Your task to perform on an android device: turn pop-ups on in chrome Image 0: 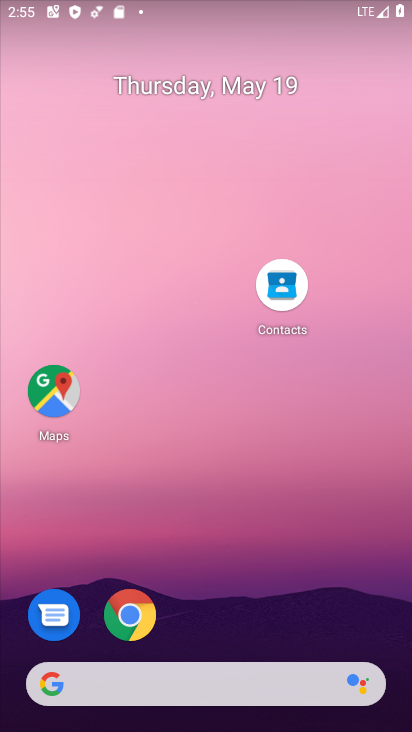
Step 0: drag from (323, 526) to (317, 226)
Your task to perform on an android device: turn pop-ups on in chrome Image 1: 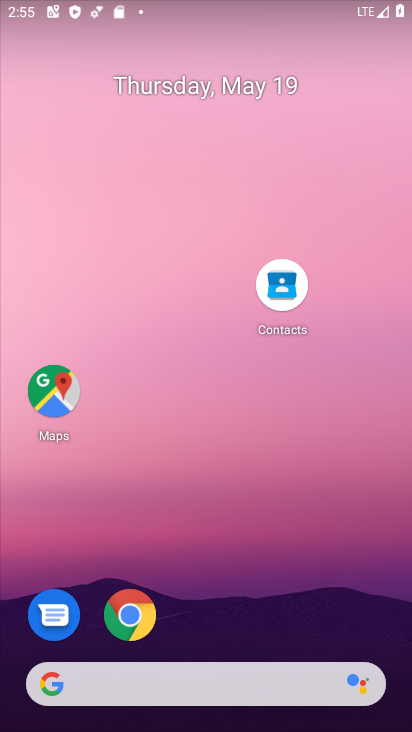
Step 1: drag from (203, 571) to (261, 126)
Your task to perform on an android device: turn pop-ups on in chrome Image 2: 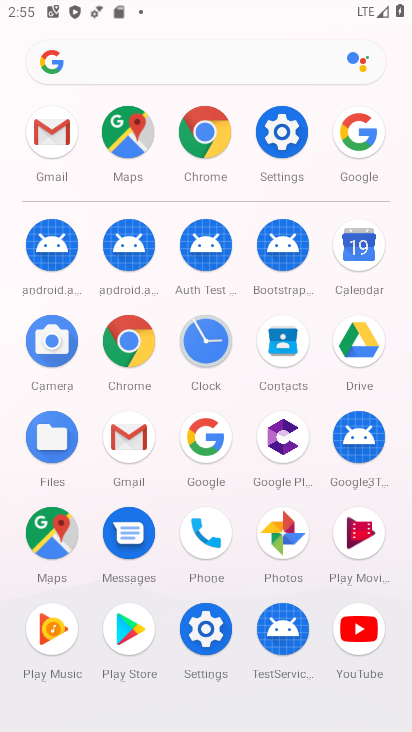
Step 2: click (220, 134)
Your task to perform on an android device: turn pop-ups on in chrome Image 3: 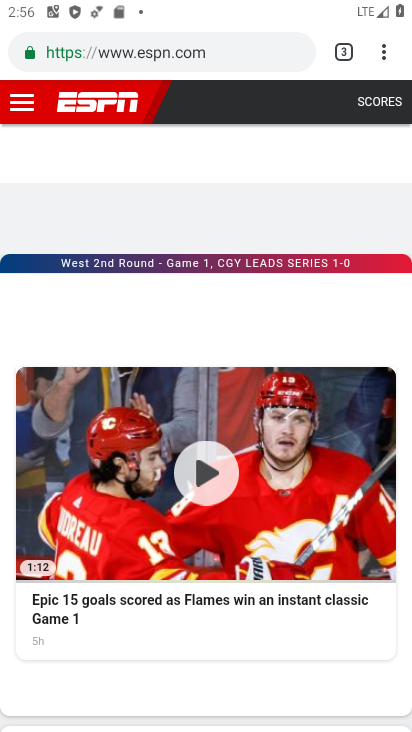
Step 3: click (389, 49)
Your task to perform on an android device: turn pop-ups on in chrome Image 4: 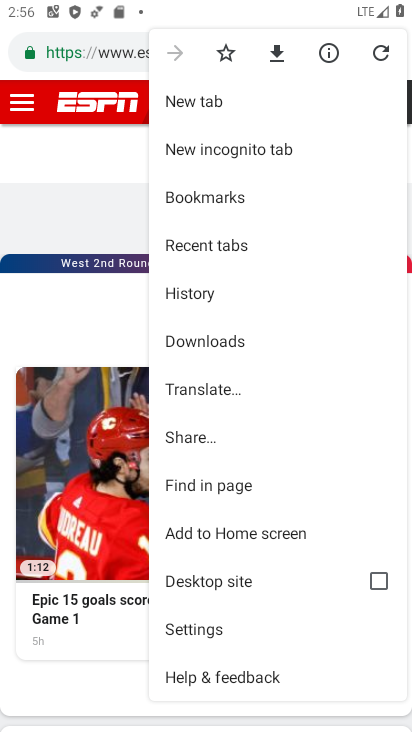
Step 4: click (240, 628)
Your task to perform on an android device: turn pop-ups on in chrome Image 5: 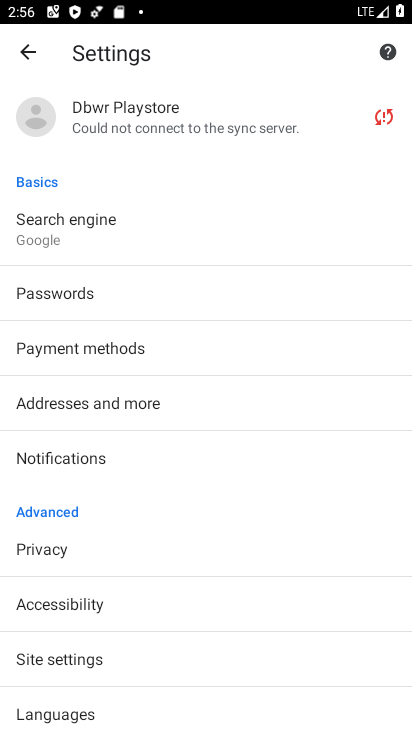
Step 5: drag from (201, 517) to (270, 285)
Your task to perform on an android device: turn pop-ups on in chrome Image 6: 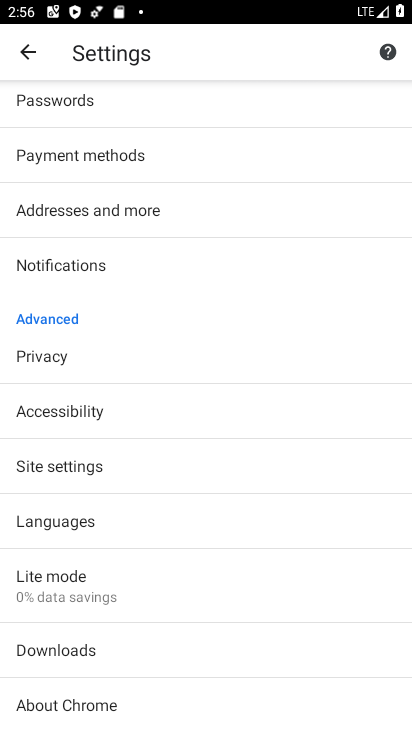
Step 6: click (117, 469)
Your task to perform on an android device: turn pop-ups on in chrome Image 7: 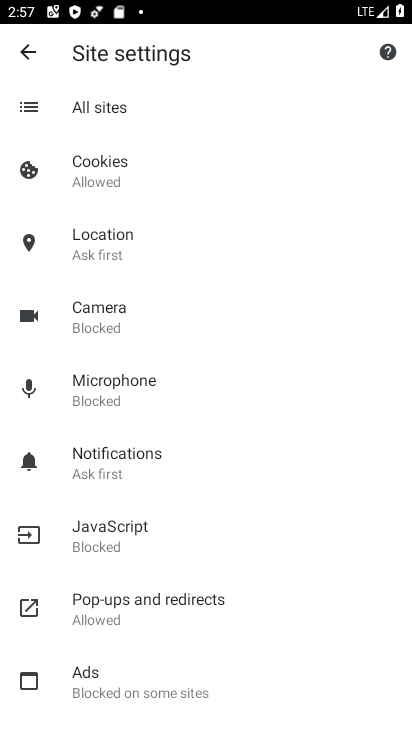
Step 7: drag from (181, 528) to (200, 379)
Your task to perform on an android device: turn pop-ups on in chrome Image 8: 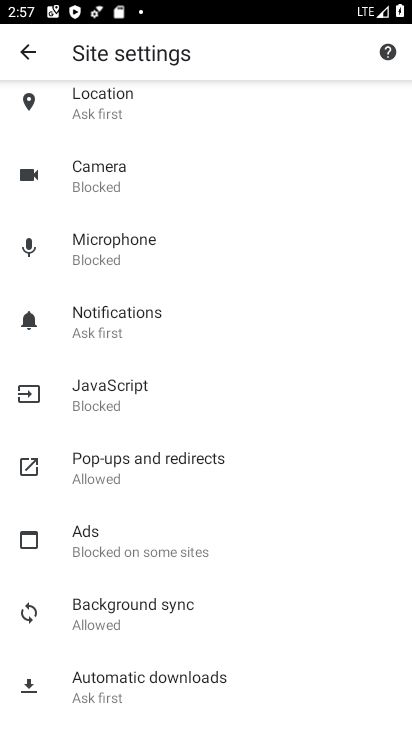
Step 8: click (202, 462)
Your task to perform on an android device: turn pop-ups on in chrome Image 9: 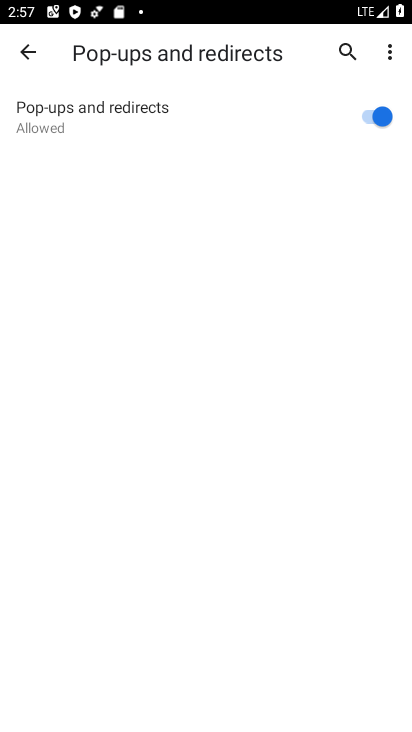
Step 9: task complete